Your task to perform on an android device: When is my next appointment? Image 0: 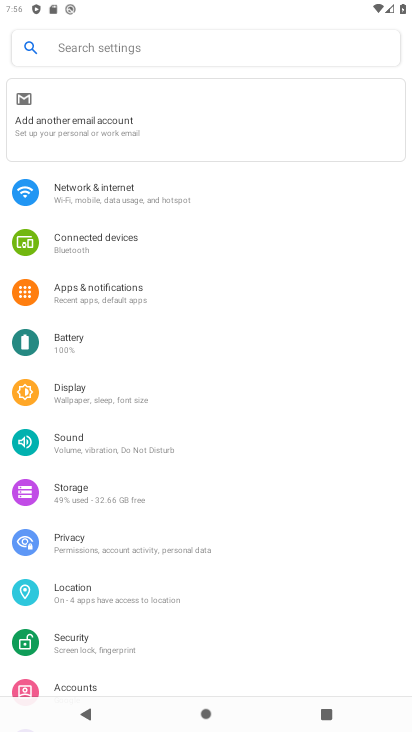
Step 0: press home button
Your task to perform on an android device: When is my next appointment? Image 1: 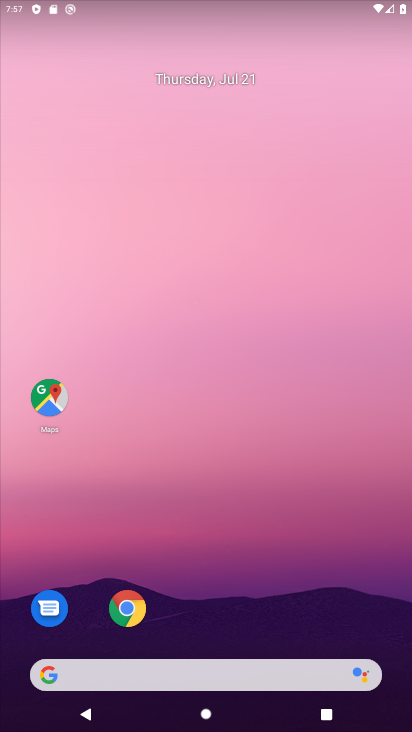
Step 1: drag from (206, 648) to (304, 10)
Your task to perform on an android device: When is my next appointment? Image 2: 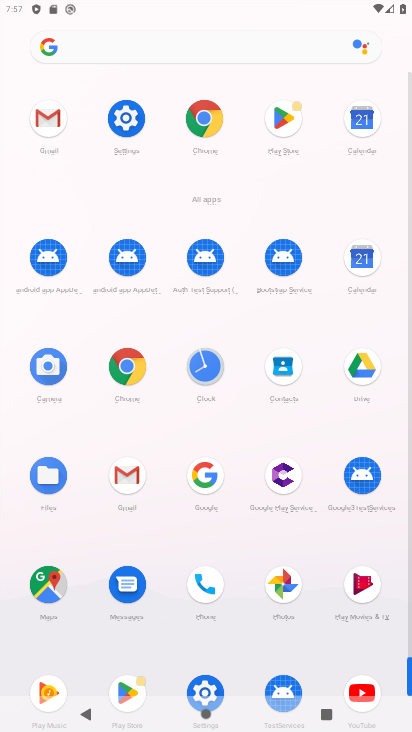
Step 2: click (360, 254)
Your task to perform on an android device: When is my next appointment? Image 3: 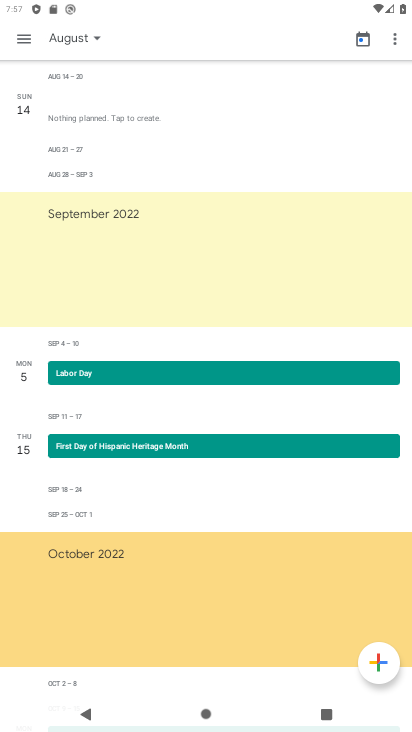
Step 3: click (89, 40)
Your task to perform on an android device: When is my next appointment? Image 4: 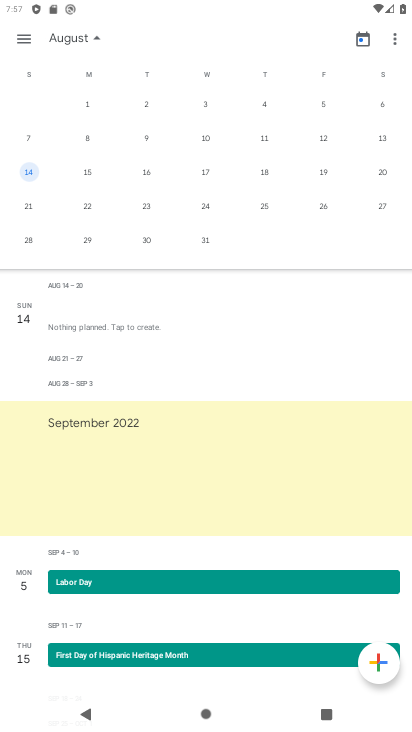
Step 4: drag from (25, 170) to (361, 176)
Your task to perform on an android device: When is my next appointment? Image 5: 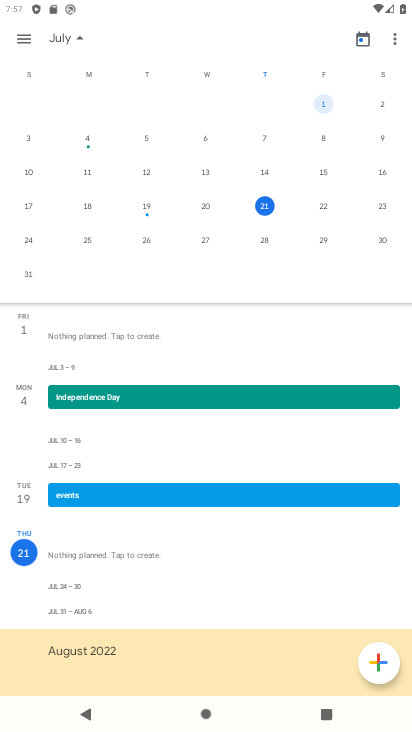
Step 5: click (260, 206)
Your task to perform on an android device: When is my next appointment? Image 6: 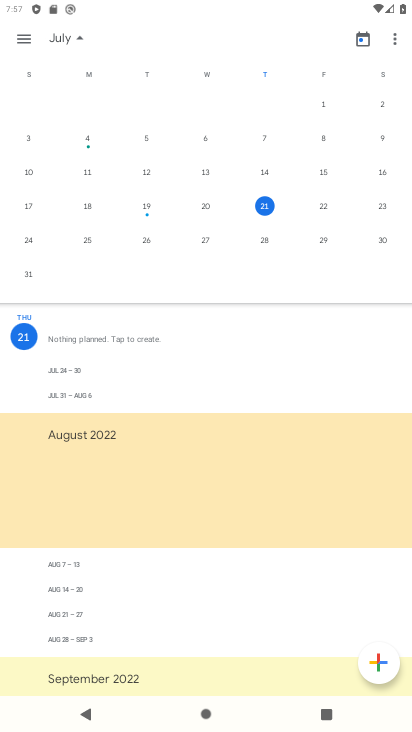
Step 6: task complete